Your task to perform on an android device: move a message to another label in the gmail app Image 0: 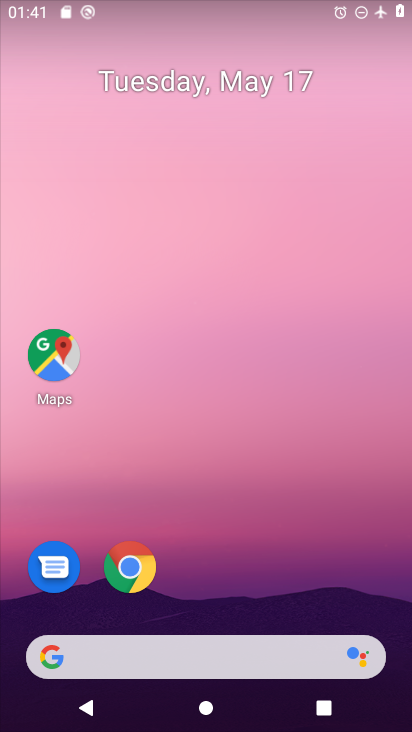
Step 0: drag from (279, 557) to (187, 156)
Your task to perform on an android device: move a message to another label in the gmail app Image 1: 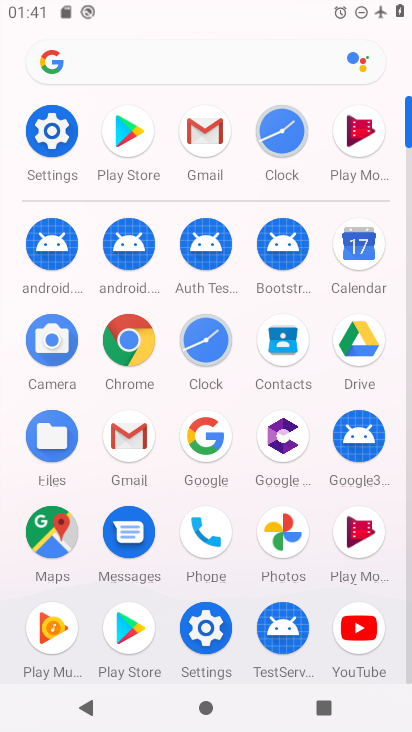
Step 1: click (203, 138)
Your task to perform on an android device: move a message to another label in the gmail app Image 2: 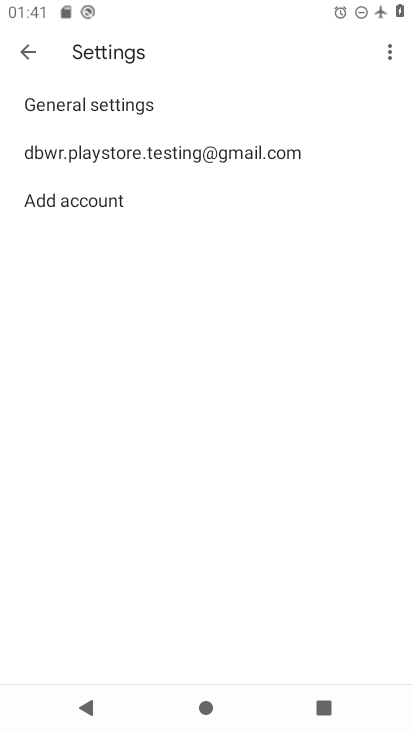
Step 2: click (27, 50)
Your task to perform on an android device: move a message to another label in the gmail app Image 3: 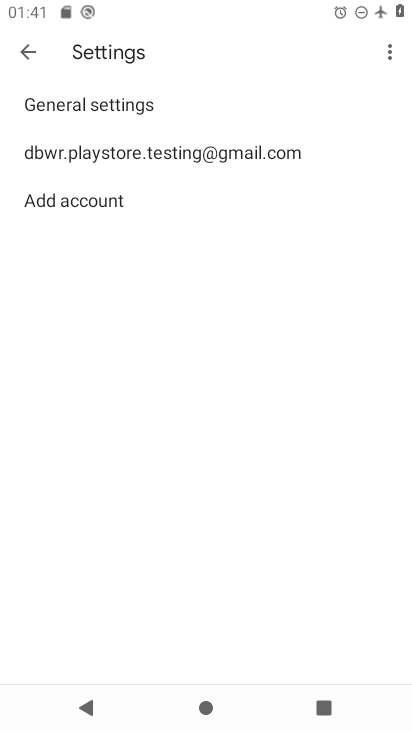
Step 3: click (23, 49)
Your task to perform on an android device: move a message to another label in the gmail app Image 4: 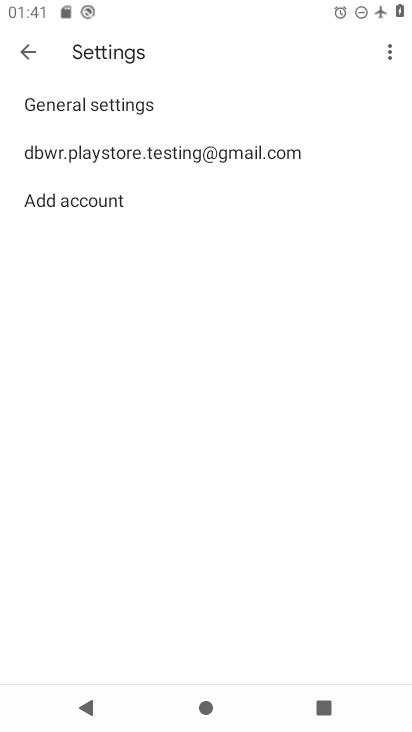
Step 4: click (24, 50)
Your task to perform on an android device: move a message to another label in the gmail app Image 5: 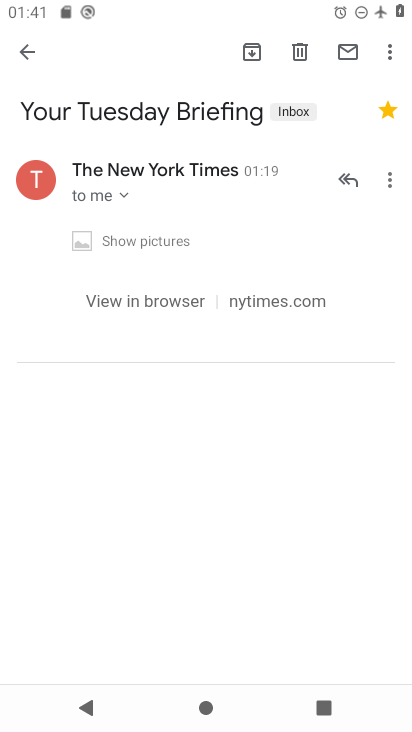
Step 5: click (20, 43)
Your task to perform on an android device: move a message to another label in the gmail app Image 6: 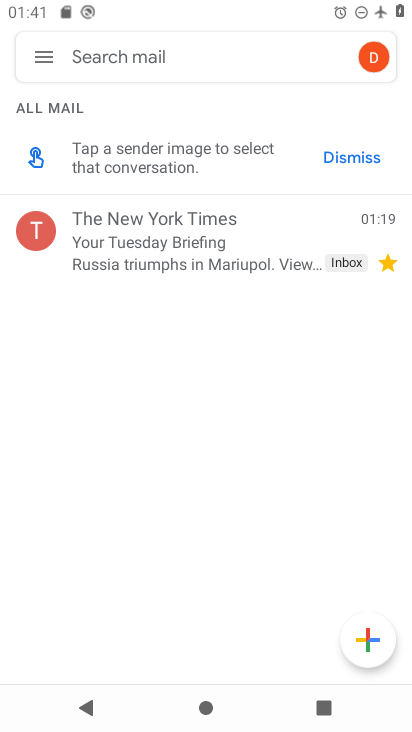
Step 6: click (258, 250)
Your task to perform on an android device: move a message to another label in the gmail app Image 7: 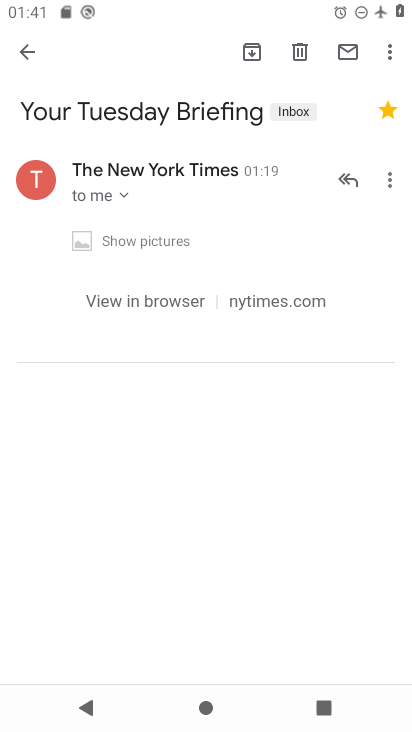
Step 7: click (388, 46)
Your task to perform on an android device: move a message to another label in the gmail app Image 8: 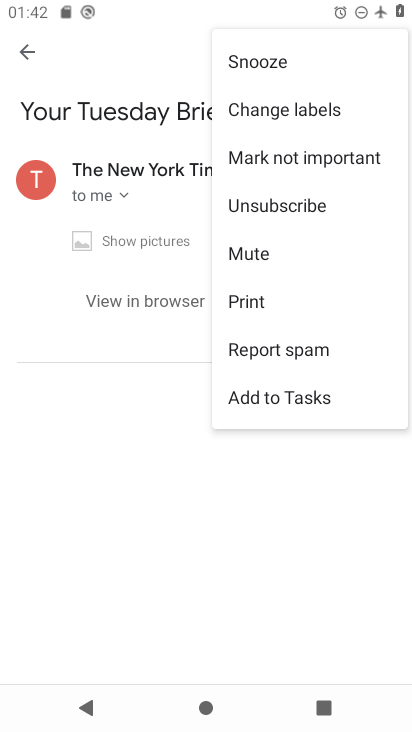
Step 8: click (272, 103)
Your task to perform on an android device: move a message to another label in the gmail app Image 9: 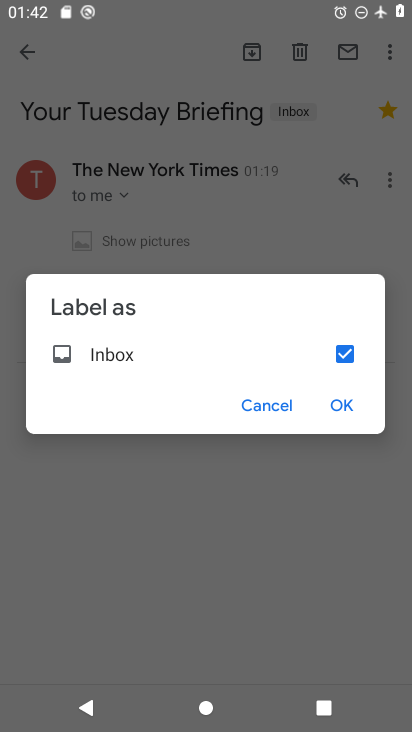
Step 9: click (338, 399)
Your task to perform on an android device: move a message to another label in the gmail app Image 10: 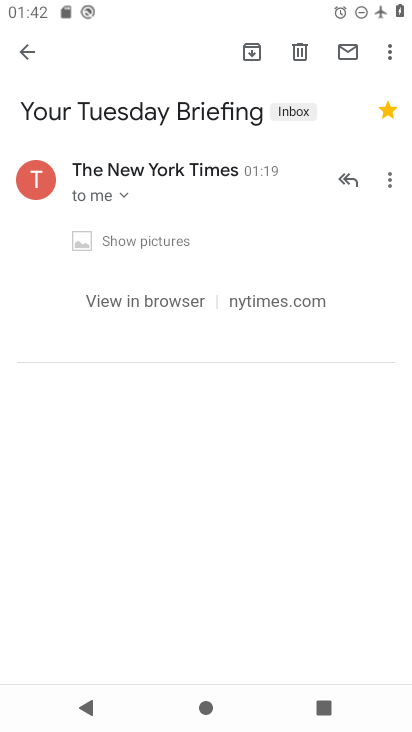
Step 10: task complete